Your task to perform on an android device: Go to Amazon Image 0: 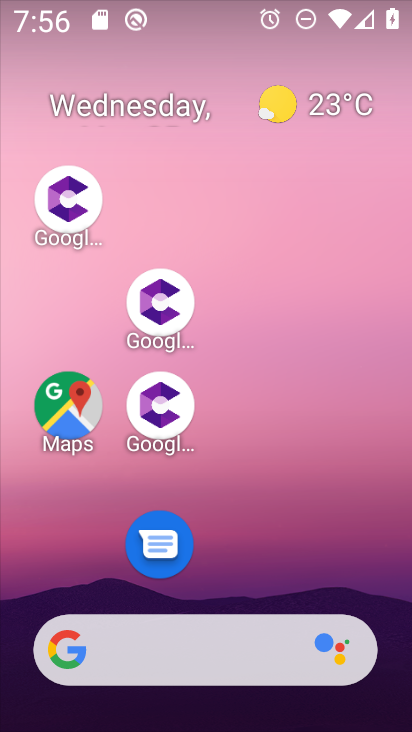
Step 0: press home button
Your task to perform on an android device: Go to Amazon Image 1: 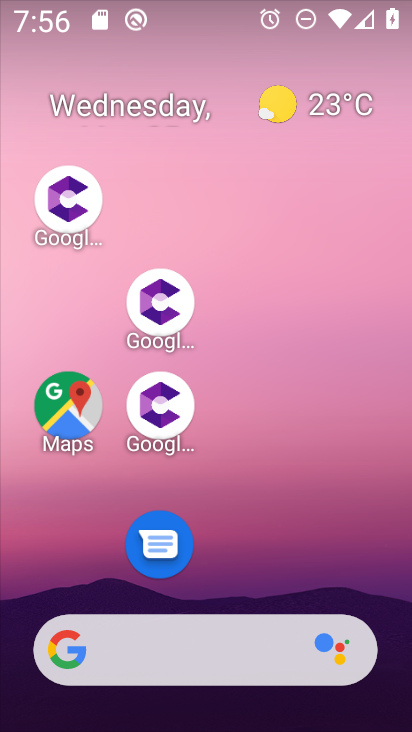
Step 1: drag from (275, 509) to (217, 163)
Your task to perform on an android device: Go to Amazon Image 2: 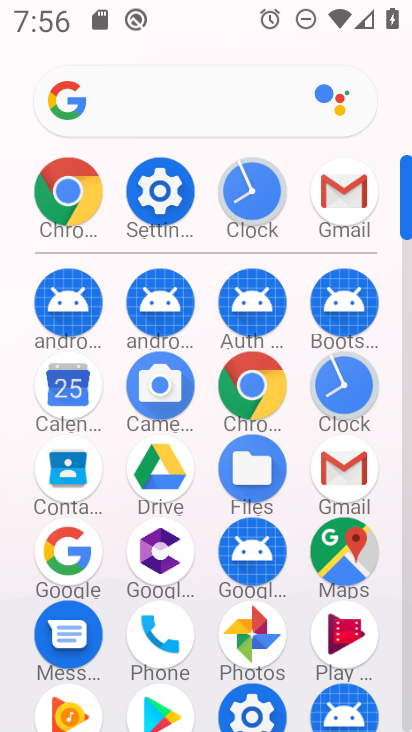
Step 2: click (56, 190)
Your task to perform on an android device: Go to Amazon Image 3: 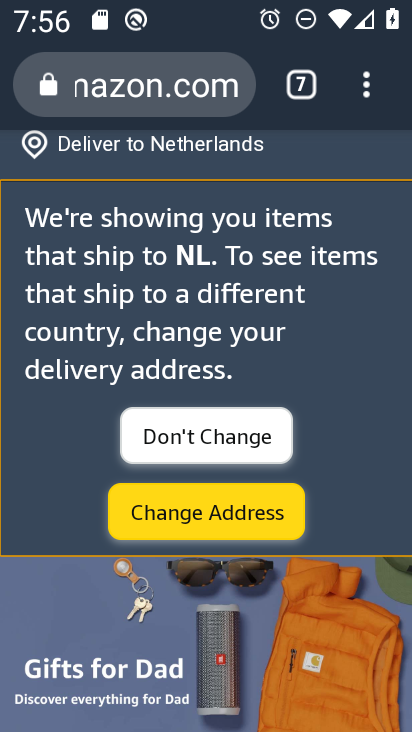
Step 3: task complete